Your task to perform on an android device: turn on priority inbox in the gmail app Image 0: 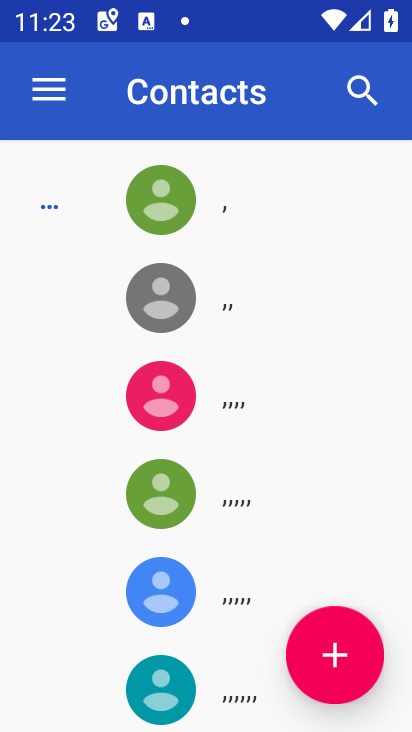
Step 0: press home button
Your task to perform on an android device: turn on priority inbox in the gmail app Image 1: 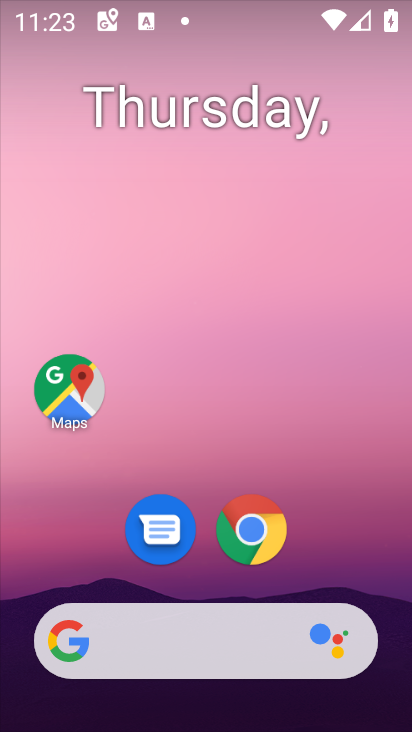
Step 1: drag from (194, 550) to (186, 54)
Your task to perform on an android device: turn on priority inbox in the gmail app Image 2: 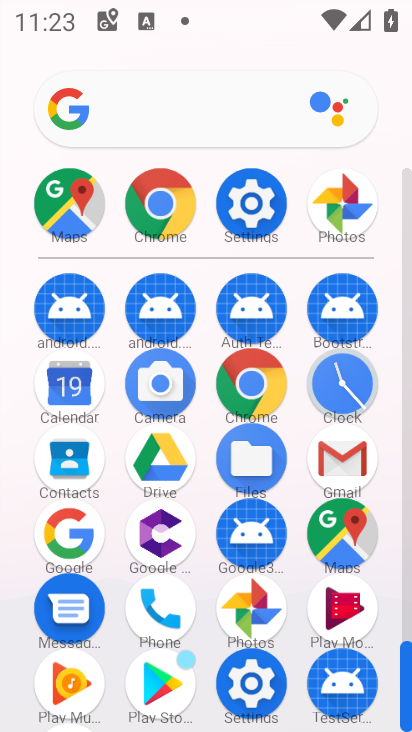
Step 2: click (358, 469)
Your task to perform on an android device: turn on priority inbox in the gmail app Image 3: 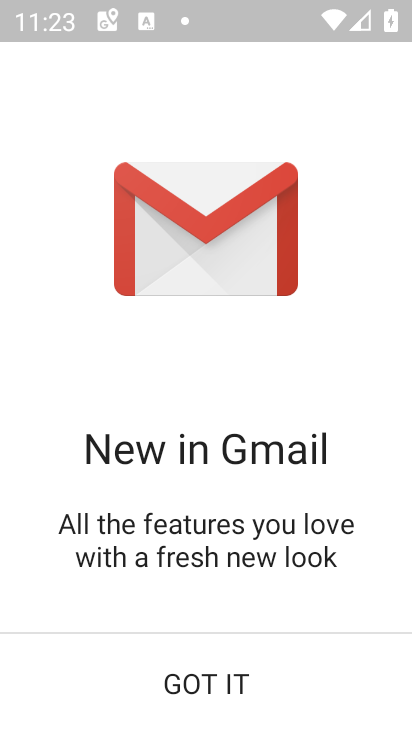
Step 3: click (267, 683)
Your task to perform on an android device: turn on priority inbox in the gmail app Image 4: 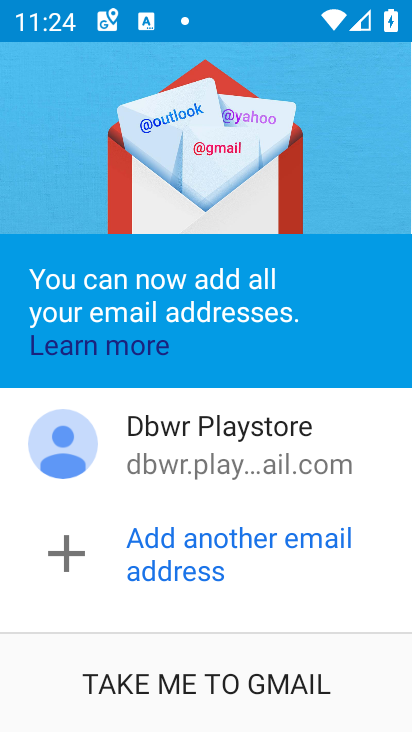
Step 4: click (266, 668)
Your task to perform on an android device: turn on priority inbox in the gmail app Image 5: 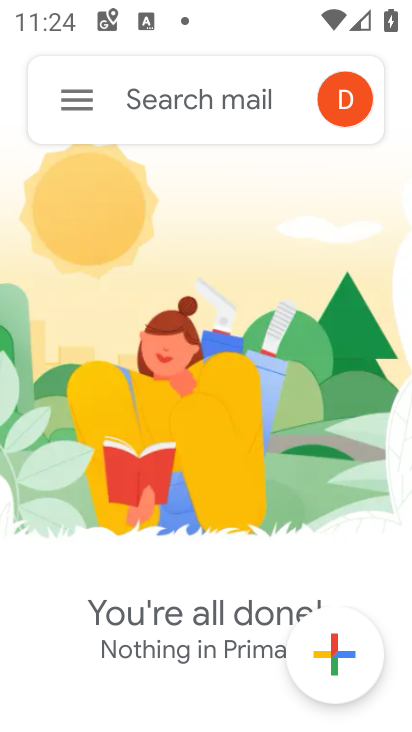
Step 5: click (75, 110)
Your task to perform on an android device: turn on priority inbox in the gmail app Image 6: 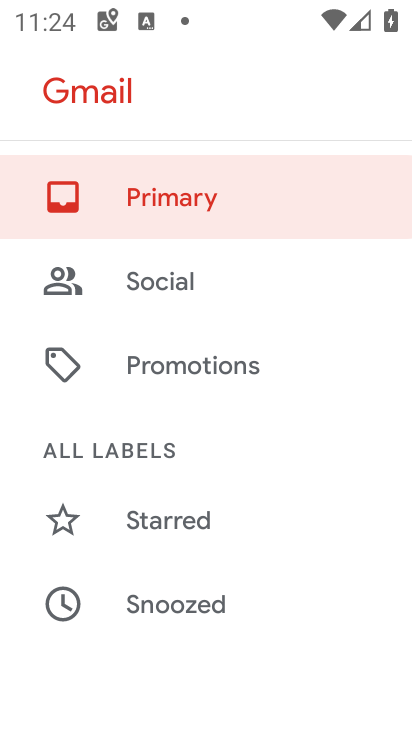
Step 6: drag from (170, 482) to (170, 257)
Your task to perform on an android device: turn on priority inbox in the gmail app Image 7: 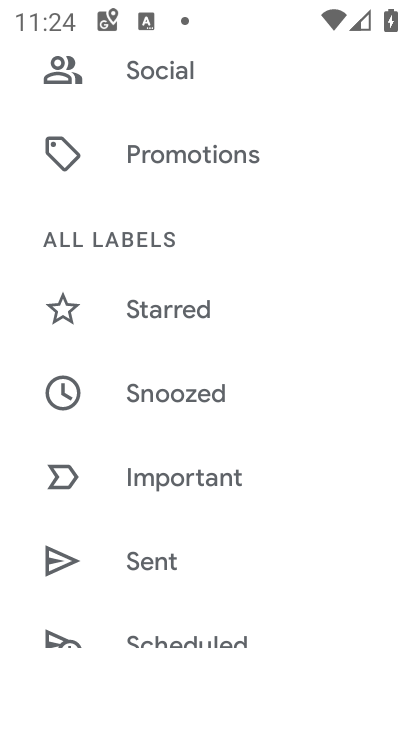
Step 7: drag from (183, 479) to (201, 322)
Your task to perform on an android device: turn on priority inbox in the gmail app Image 8: 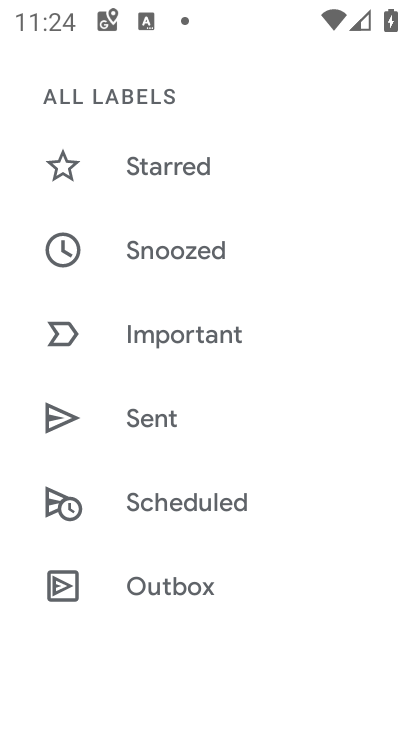
Step 8: drag from (171, 495) to (187, 110)
Your task to perform on an android device: turn on priority inbox in the gmail app Image 9: 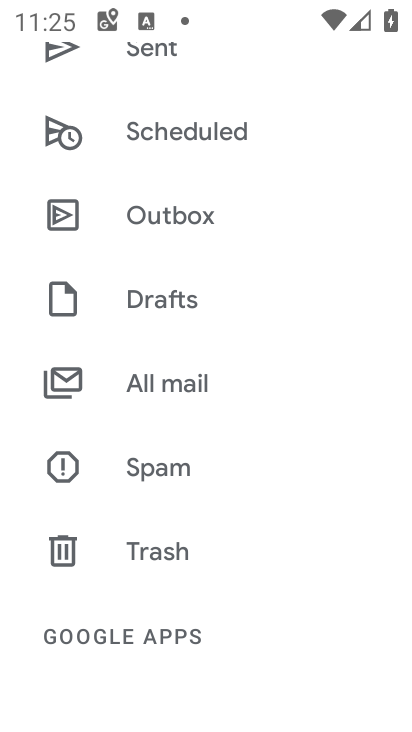
Step 9: drag from (179, 517) to (201, 241)
Your task to perform on an android device: turn on priority inbox in the gmail app Image 10: 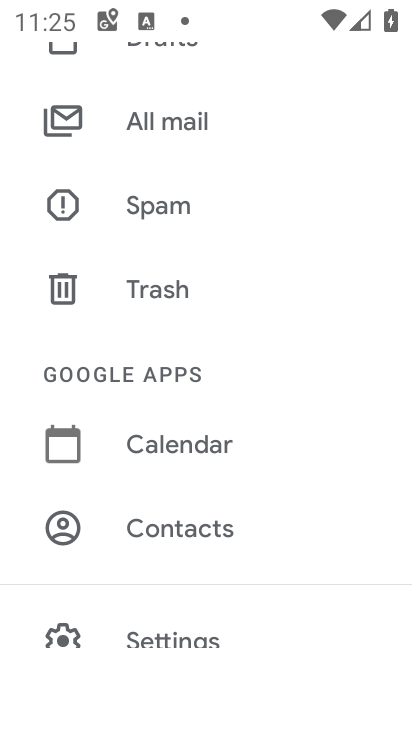
Step 10: drag from (172, 531) to (202, 315)
Your task to perform on an android device: turn on priority inbox in the gmail app Image 11: 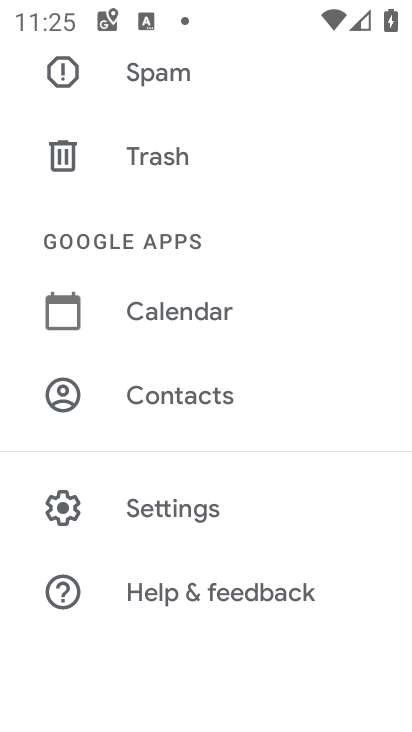
Step 11: click (177, 523)
Your task to perform on an android device: turn on priority inbox in the gmail app Image 12: 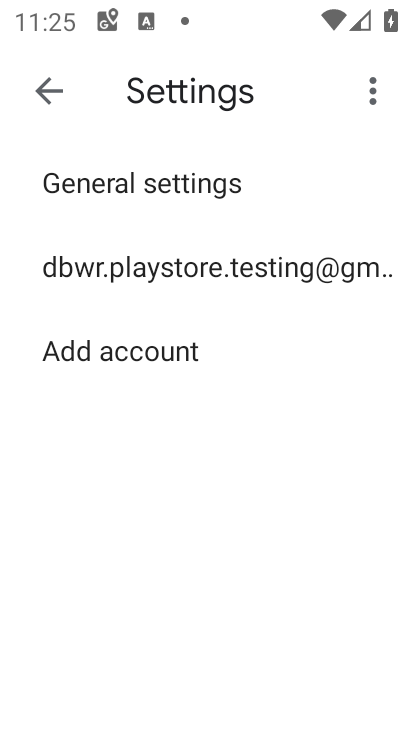
Step 12: click (189, 280)
Your task to perform on an android device: turn on priority inbox in the gmail app Image 13: 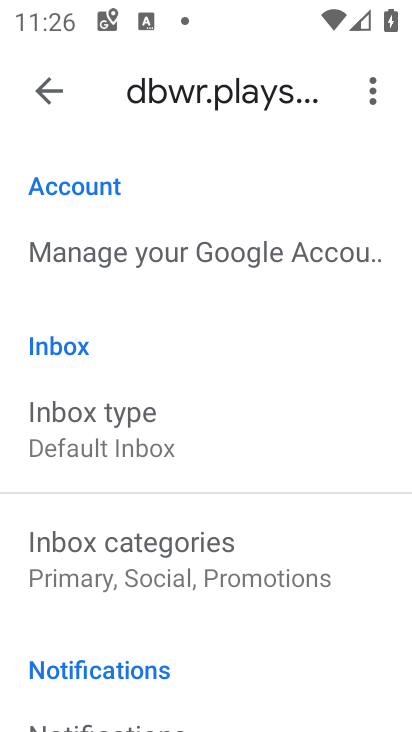
Step 13: click (145, 425)
Your task to perform on an android device: turn on priority inbox in the gmail app Image 14: 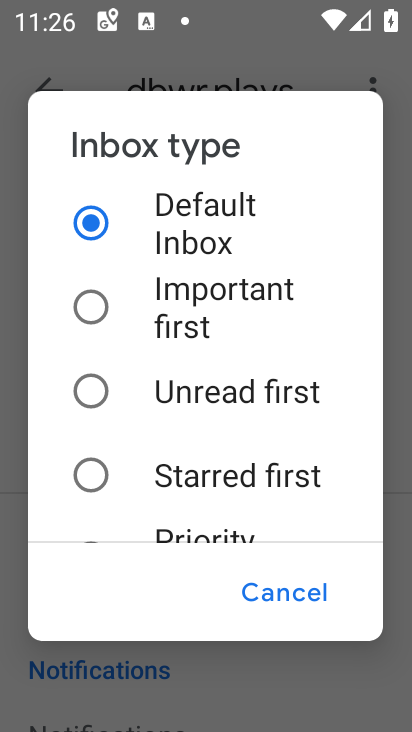
Step 14: drag from (124, 402) to (123, 114)
Your task to perform on an android device: turn on priority inbox in the gmail app Image 15: 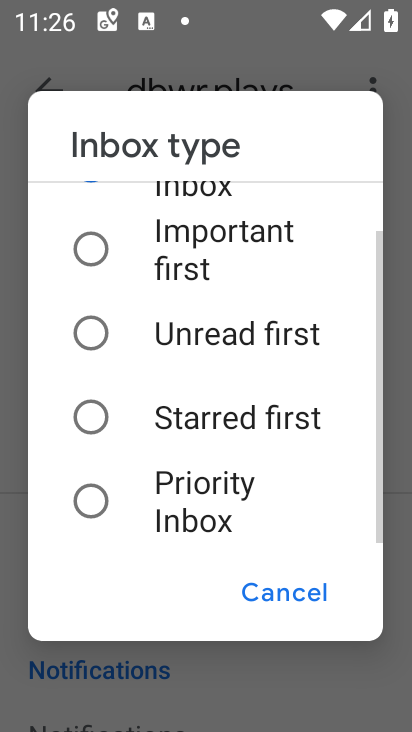
Step 15: click (101, 500)
Your task to perform on an android device: turn on priority inbox in the gmail app Image 16: 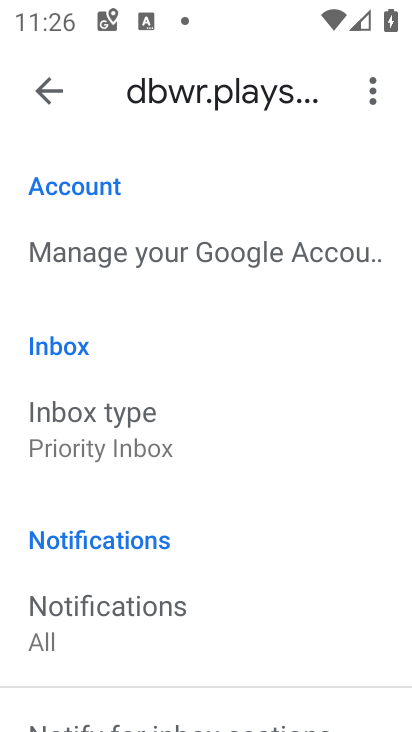
Step 16: task complete